Your task to perform on an android device: turn off priority inbox in the gmail app Image 0: 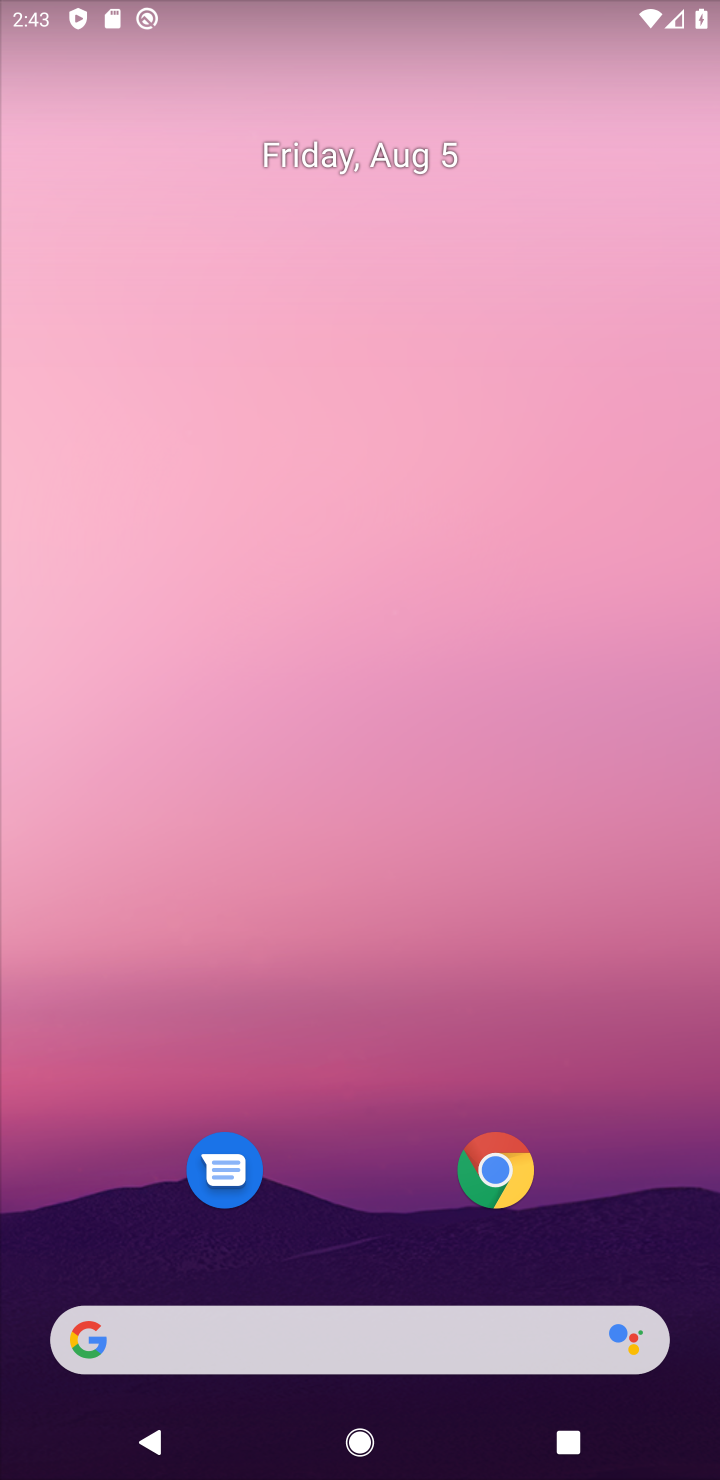
Step 0: drag from (342, 940) to (253, 541)
Your task to perform on an android device: turn off priority inbox in the gmail app Image 1: 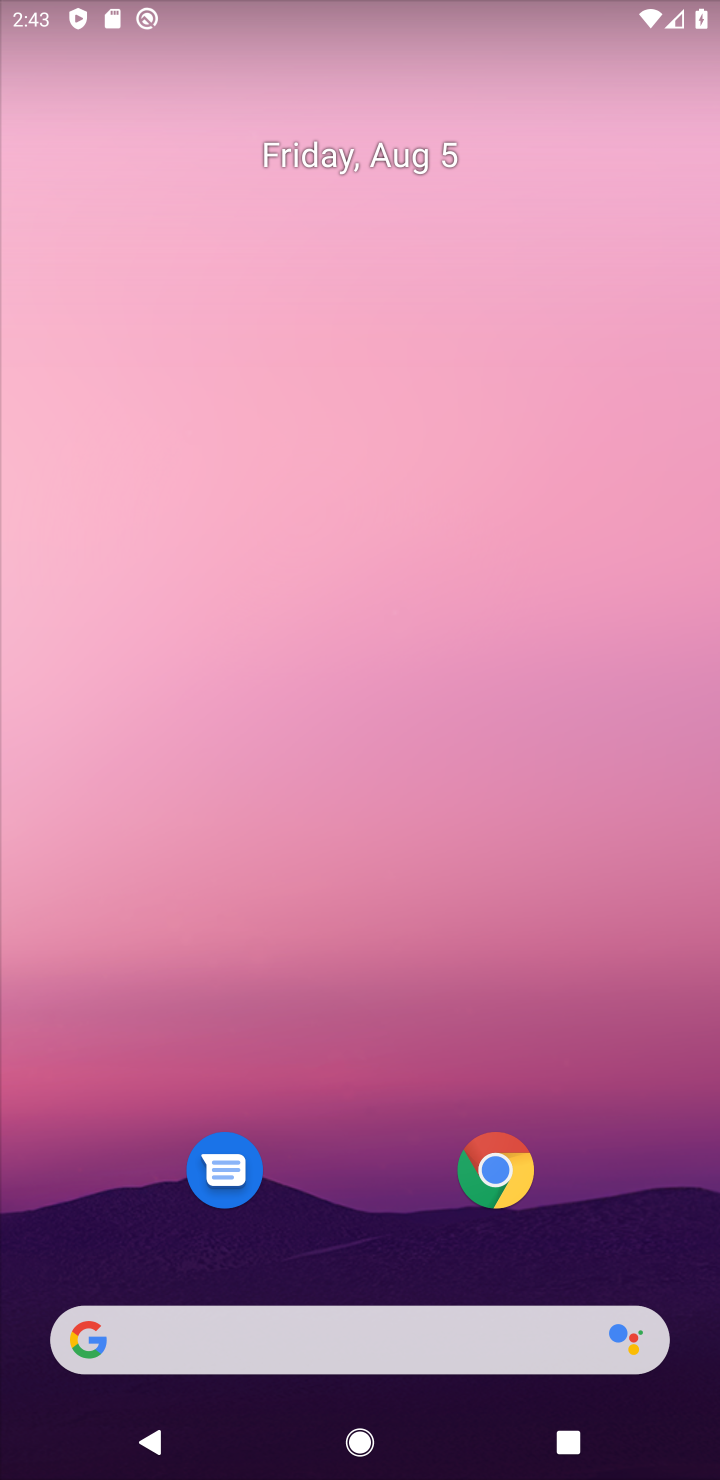
Step 1: drag from (322, 831) to (350, 615)
Your task to perform on an android device: turn off priority inbox in the gmail app Image 2: 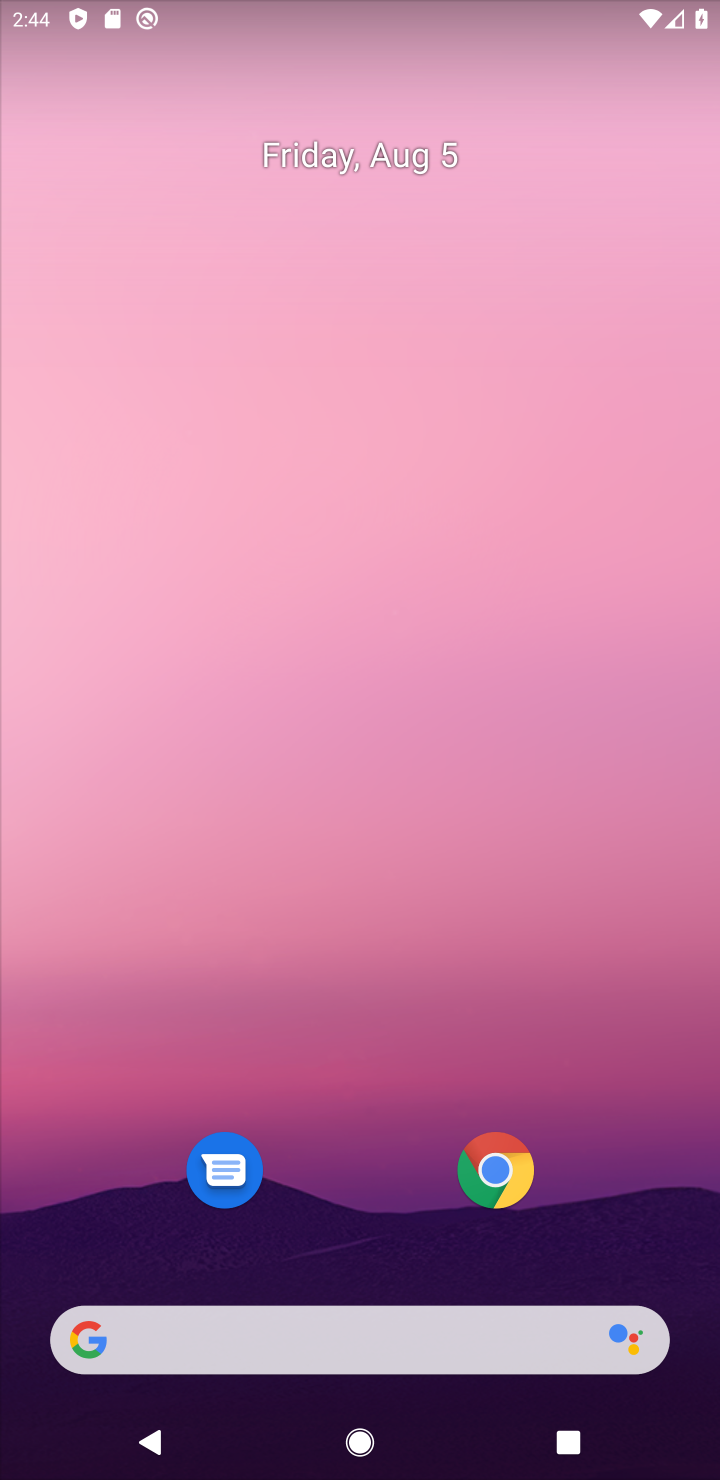
Step 2: drag from (348, 1023) to (285, 436)
Your task to perform on an android device: turn off priority inbox in the gmail app Image 3: 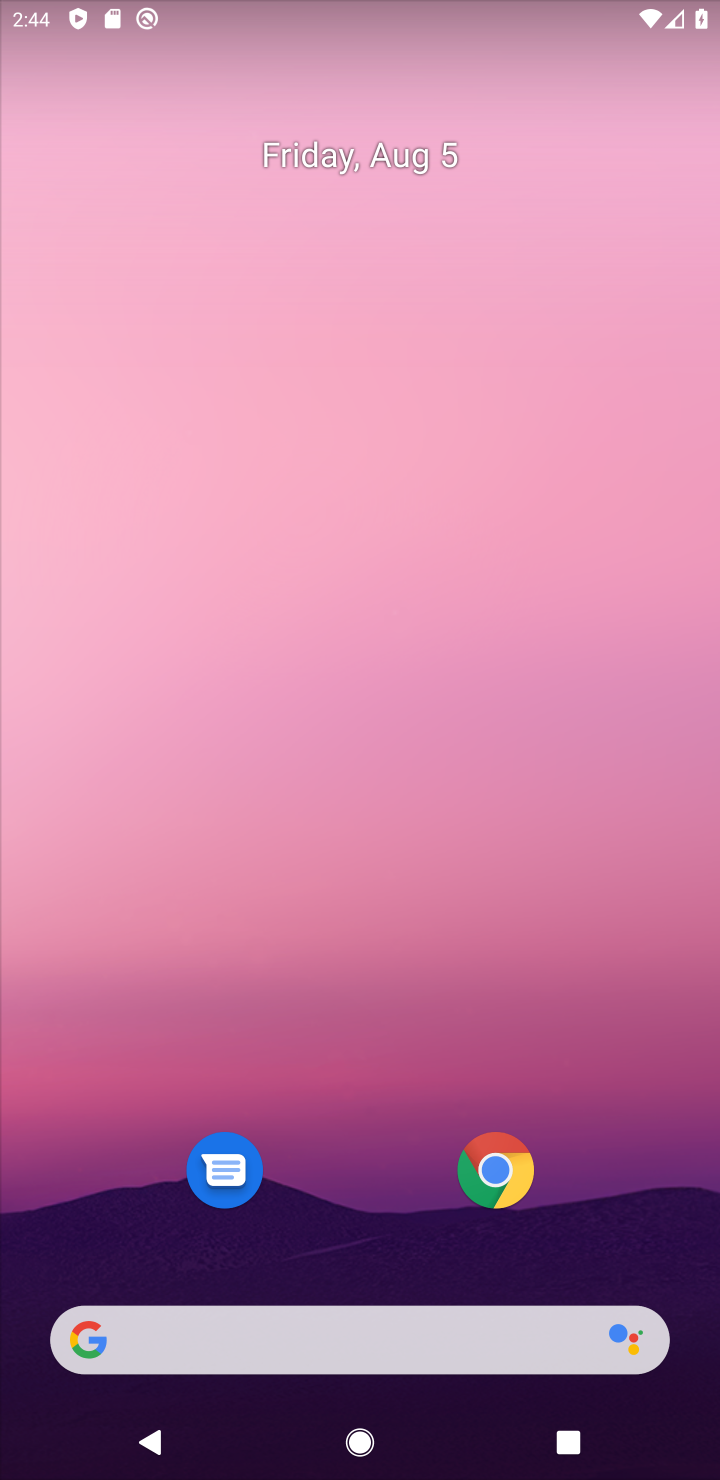
Step 3: drag from (385, 1037) to (263, 183)
Your task to perform on an android device: turn off priority inbox in the gmail app Image 4: 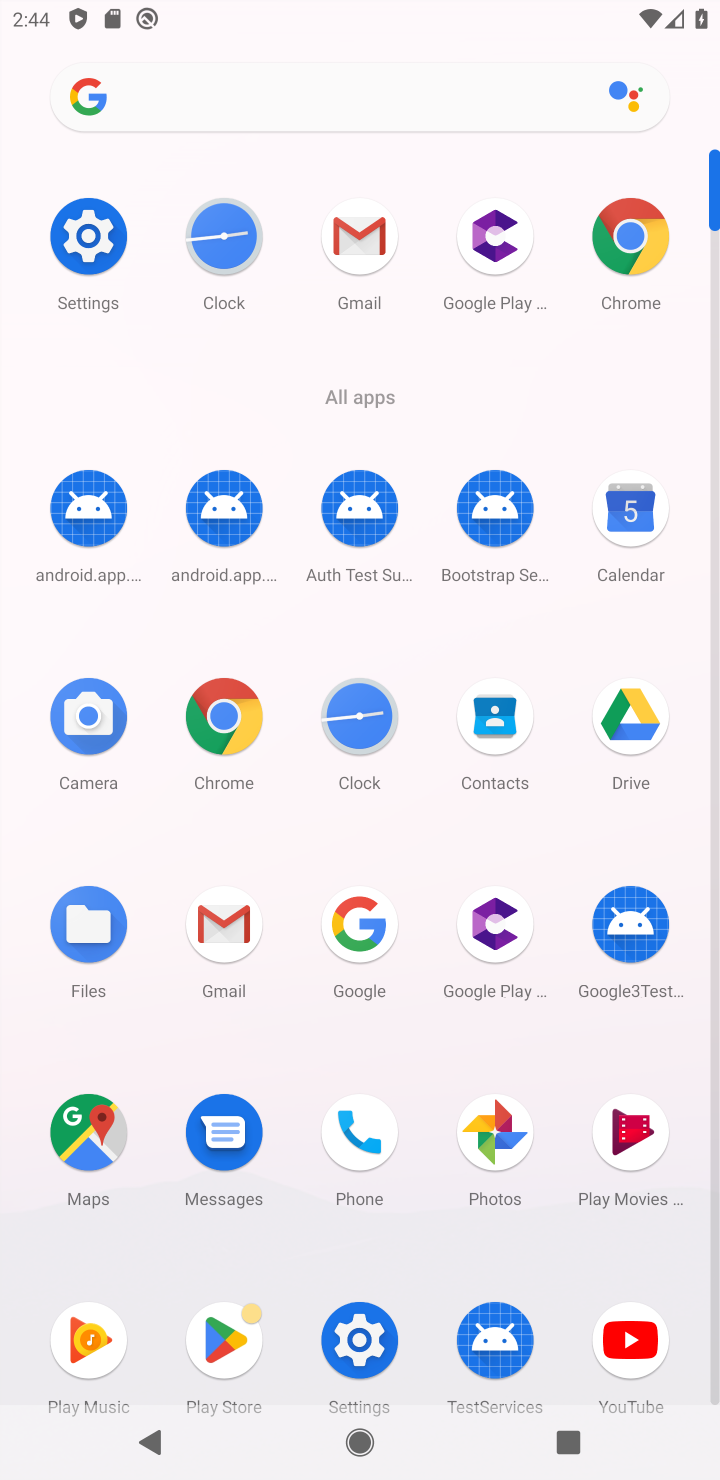
Step 4: click (225, 914)
Your task to perform on an android device: turn off priority inbox in the gmail app Image 5: 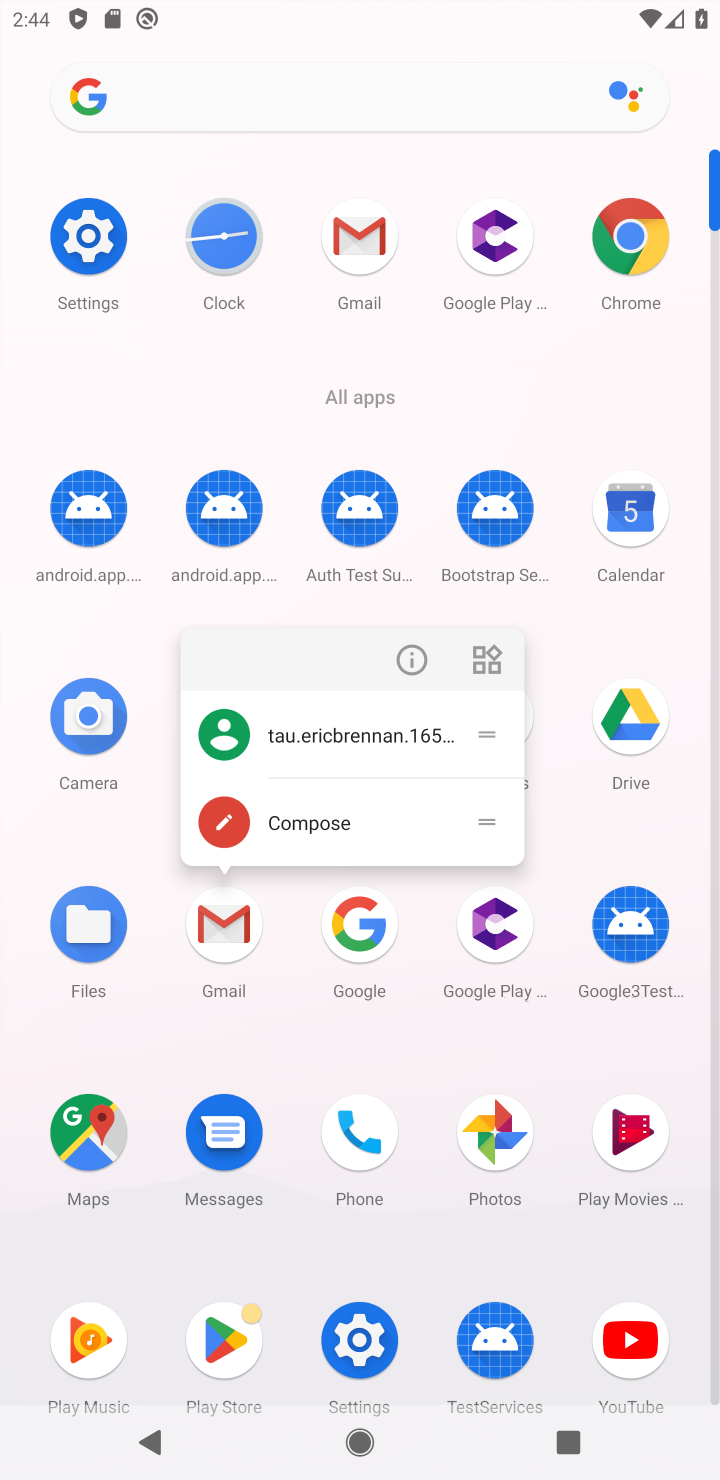
Step 5: task complete